Your task to perform on an android device: toggle improve location accuracy Image 0: 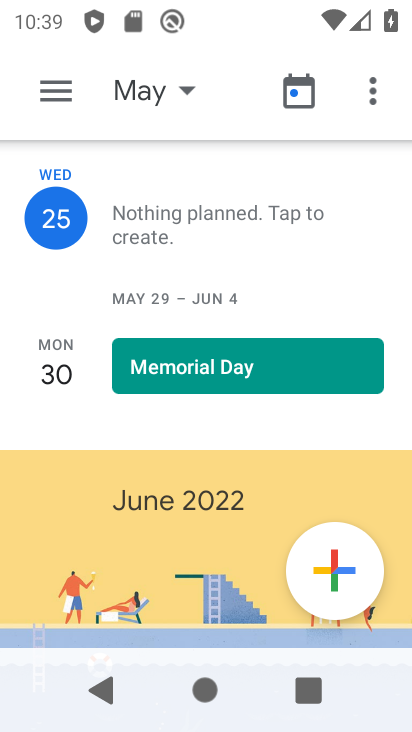
Step 0: press home button
Your task to perform on an android device: toggle improve location accuracy Image 1: 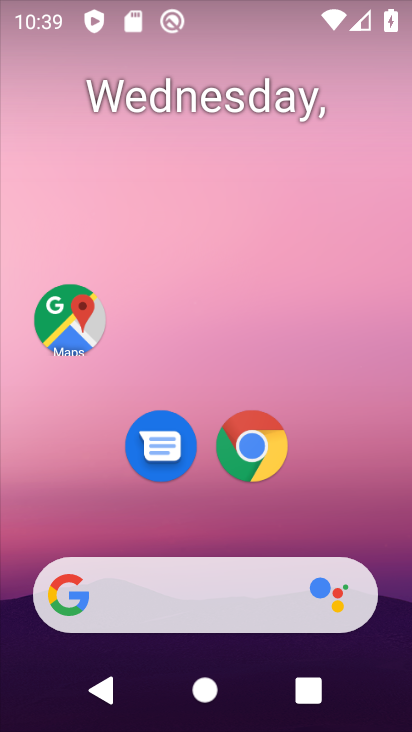
Step 1: drag from (377, 527) to (375, 157)
Your task to perform on an android device: toggle improve location accuracy Image 2: 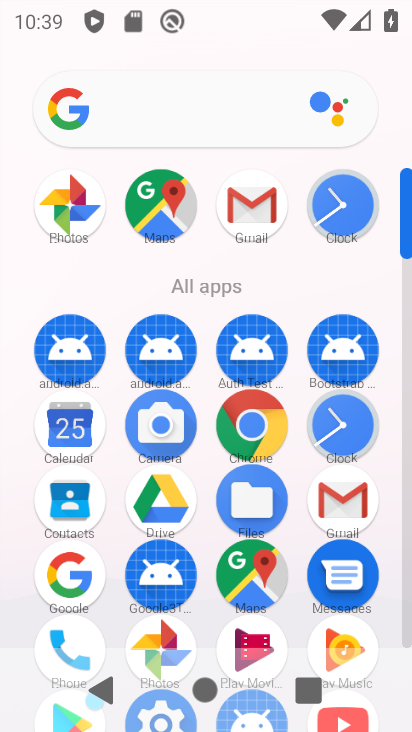
Step 2: drag from (386, 505) to (390, 291)
Your task to perform on an android device: toggle improve location accuracy Image 3: 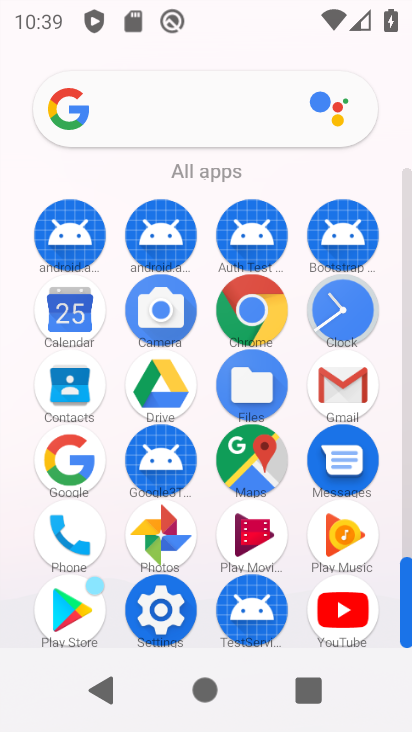
Step 3: click (172, 632)
Your task to perform on an android device: toggle improve location accuracy Image 4: 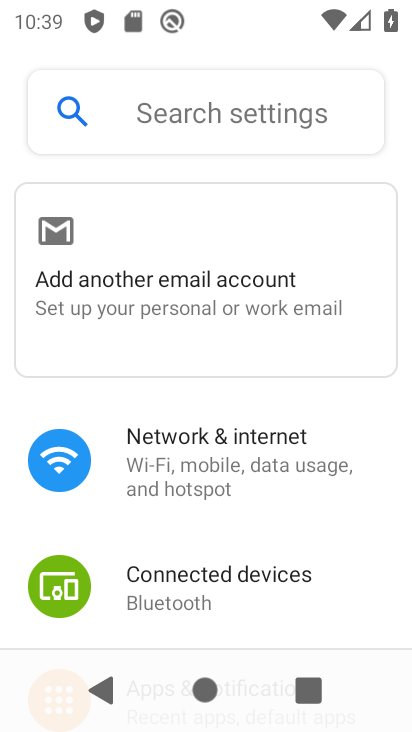
Step 4: drag from (365, 571) to (366, 398)
Your task to perform on an android device: toggle improve location accuracy Image 5: 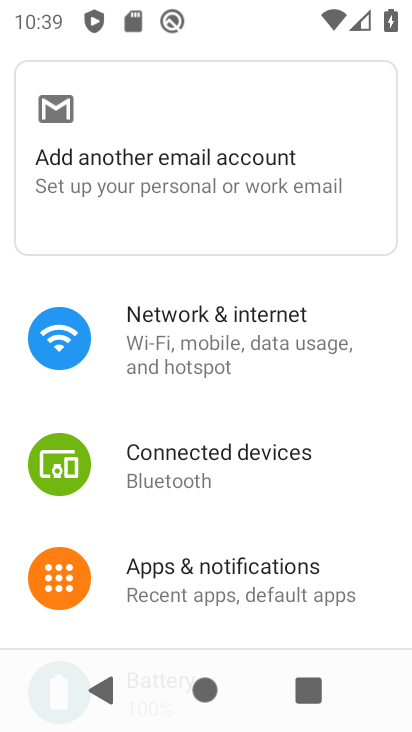
Step 5: drag from (364, 558) to (370, 360)
Your task to perform on an android device: toggle improve location accuracy Image 6: 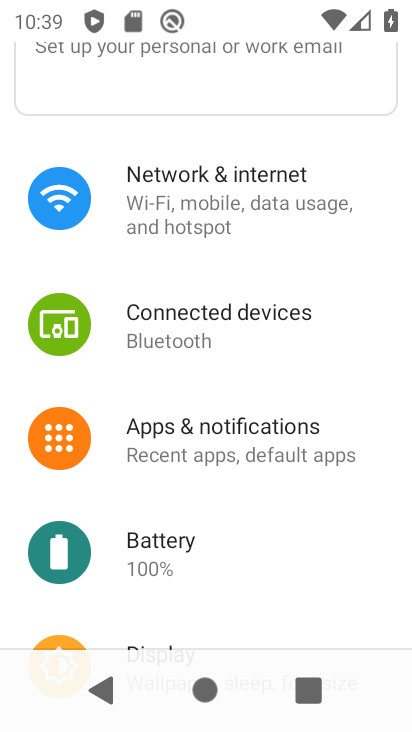
Step 6: drag from (355, 547) to (368, 380)
Your task to perform on an android device: toggle improve location accuracy Image 7: 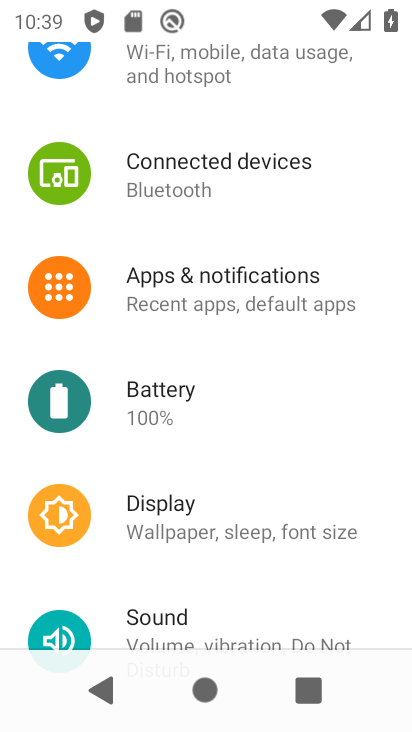
Step 7: drag from (370, 582) to (371, 424)
Your task to perform on an android device: toggle improve location accuracy Image 8: 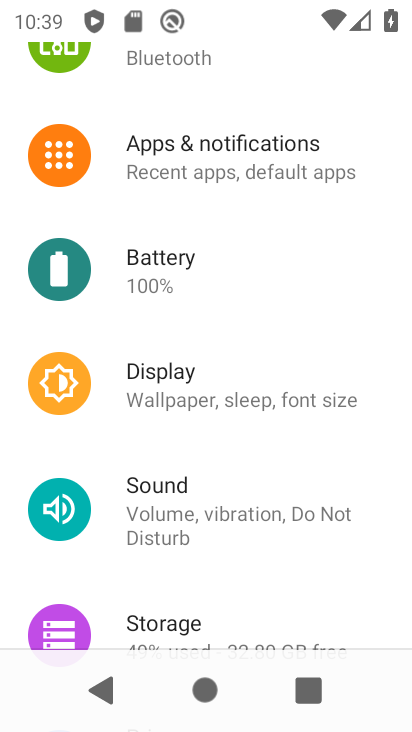
Step 8: drag from (366, 595) to (366, 450)
Your task to perform on an android device: toggle improve location accuracy Image 9: 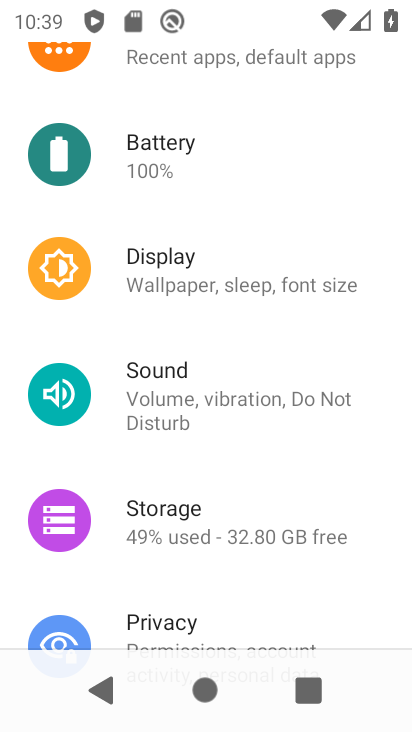
Step 9: drag from (371, 592) to (373, 433)
Your task to perform on an android device: toggle improve location accuracy Image 10: 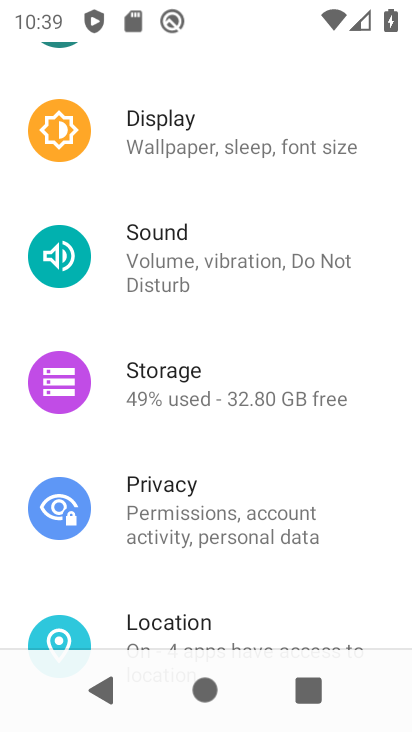
Step 10: drag from (362, 568) to (371, 430)
Your task to perform on an android device: toggle improve location accuracy Image 11: 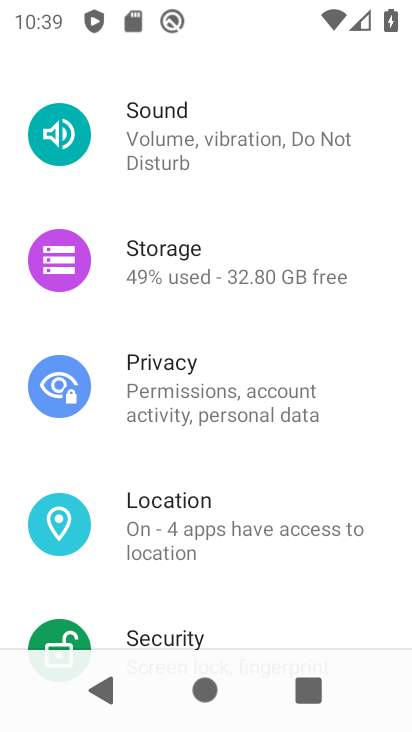
Step 11: drag from (370, 580) to (370, 411)
Your task to perform on an android device: toggle improve location accuracy Image 12: 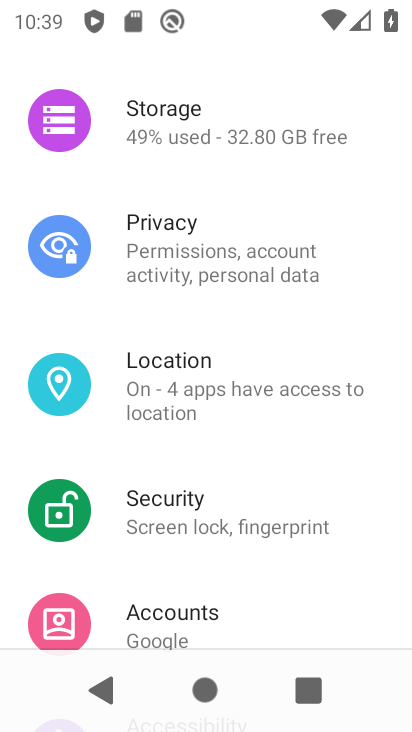
Step 12: drag from (375, 543) to (361, 415)
Your task to perform on an android device: toggle improve location accuracy Image 13: 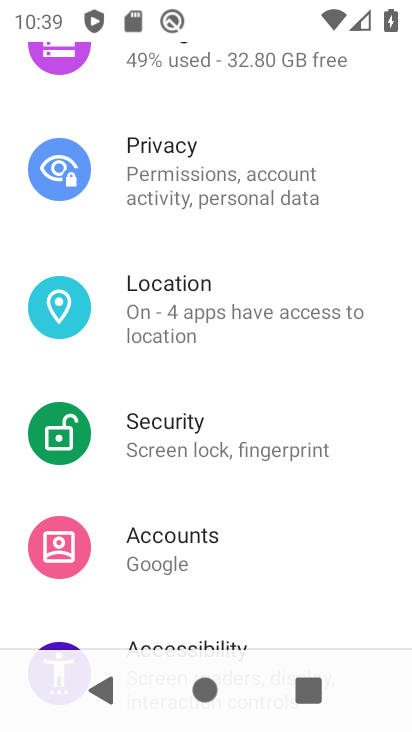
Step 13: click (239, 309)
Your task to perform on an android device: toggle improve location accuracy Image 14: 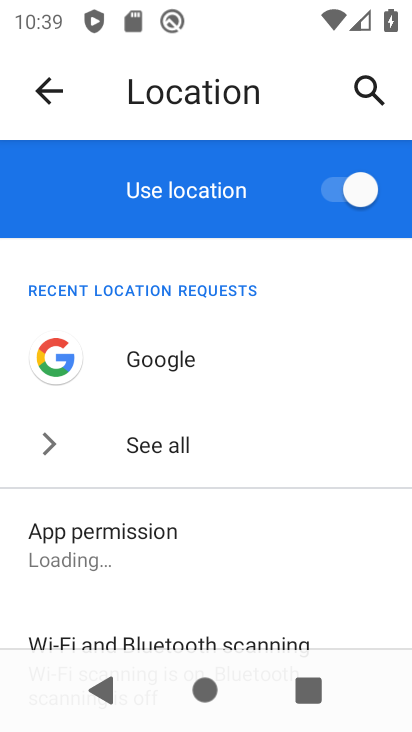
Step 14: drag from (286, 514) to (306, 343)
Your task to perform on an android device: toggle improve location accuracy Image 15: 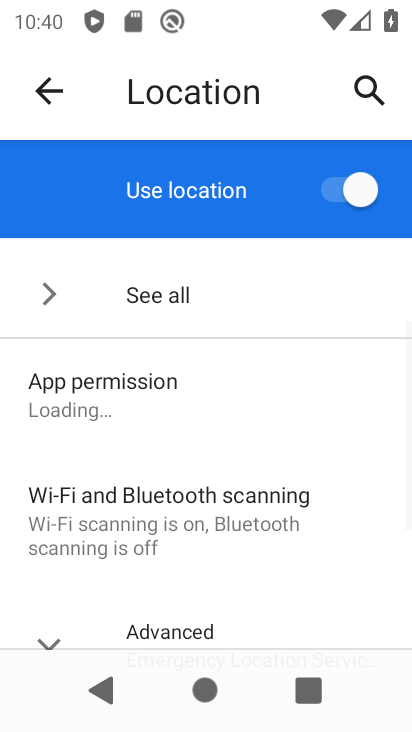
Step 15: drag from (338, 545) to (337, 331)
Your task to perform on an android device: toggle improve location accuracy Image 16: 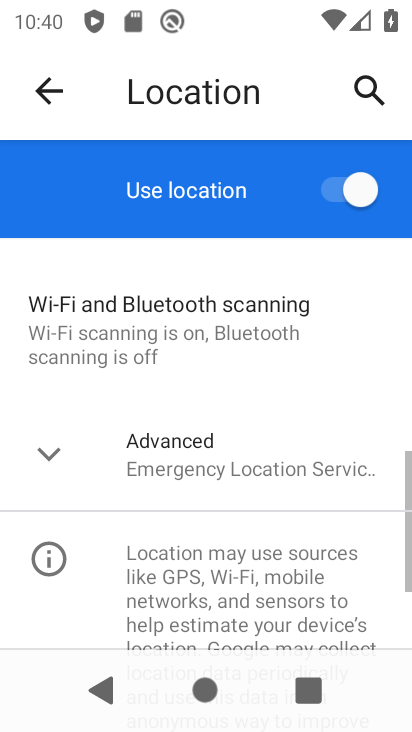
Step 16: click (247, 474)
Your task to perform on an android device: toggle improve location accuracy Image 17: 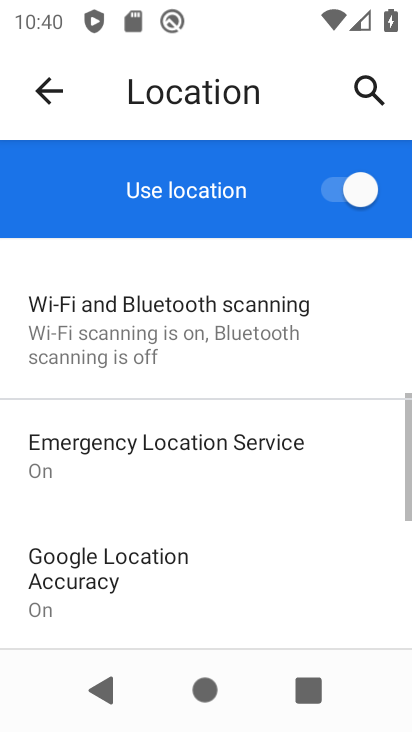
Step 17: drag from (300, 554) to (317, 400)
Your task to perform on an android device: toggle improve location accuracy Image 18: 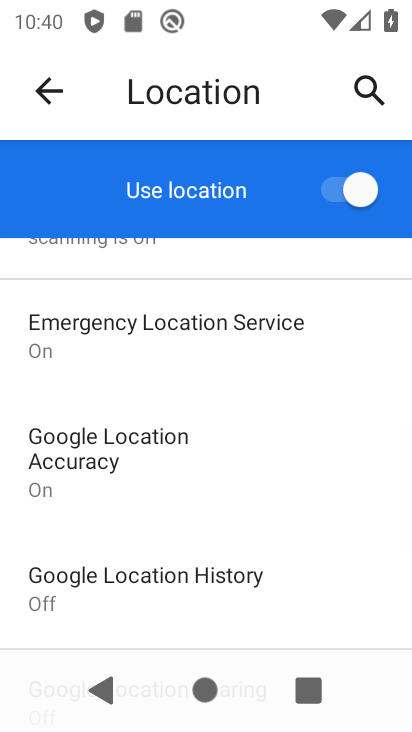
Step 18: drag from (304, 573) to (329, 406)
Your task to perform on an android device: toggle improve location accuracy Image 19: 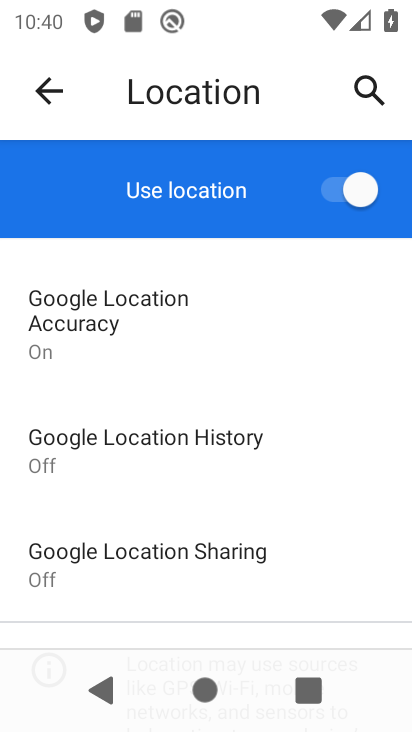
Step 19: drag from (312, 554) to (312, 408)
Your task to perform on an android device: toggle improve location accuracy Image 20: 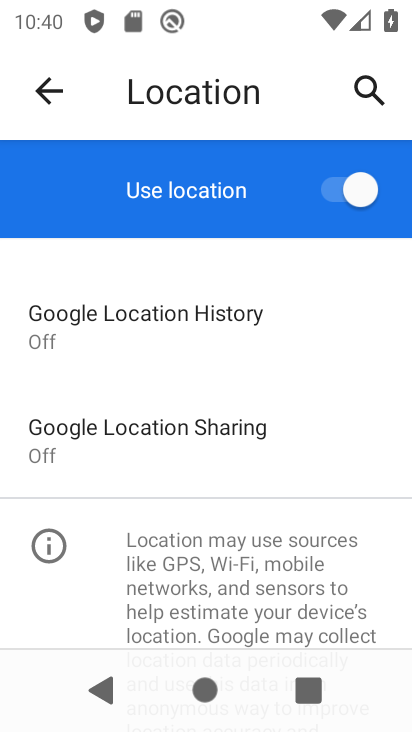
Step 20: drag from (329, 350) to (341, 487)
Your task to perform on an android device: toggle improve location accuracy Image 21: 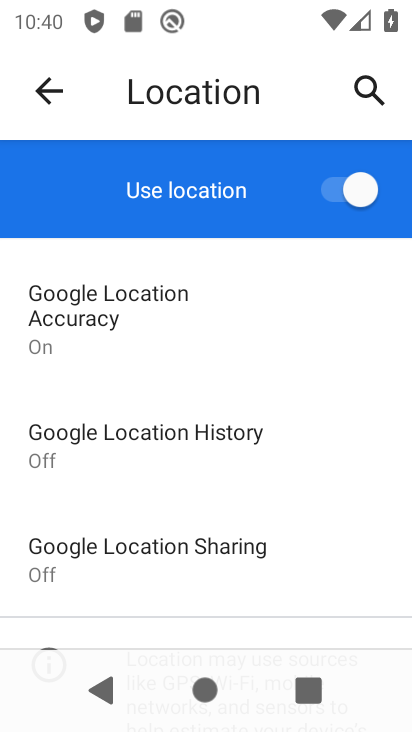
Step 21: drag from (328, 328) to (335, 473)
Your task to perform on an android device: toggle improve location accuracy Image 22: 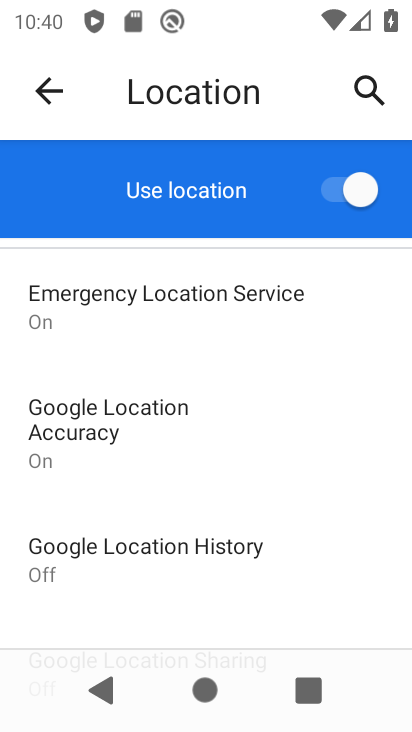
Step 22: drag from (331, 278) to (343, 449)
Your task to perform on an android device: toggle improve location accuracy Image 23: 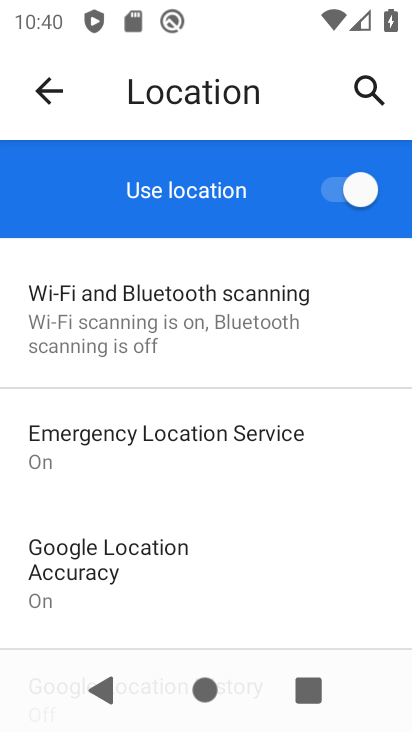
Step 23: drag from (349, 289) to (332, 410)
Your task to perform on an android device: toggle improve location accuracy Image 24: 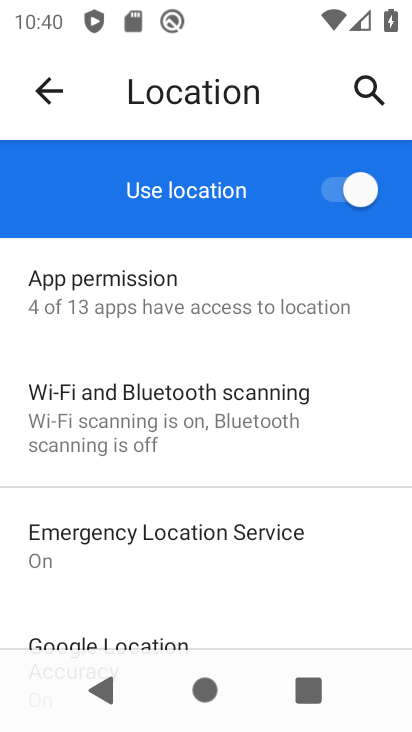
Step 24: drag from (332, 486) to (331, 345)
Your task to perform on an android device: toggle improve location accuracy Image 25: 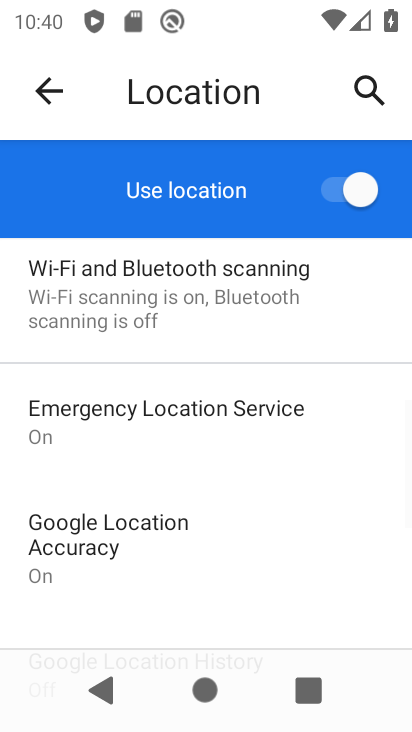
Step 25: drag from (301, 535) to (317, 416)
Your task to perform on an android device: toggle improve location accuracy Image 26: 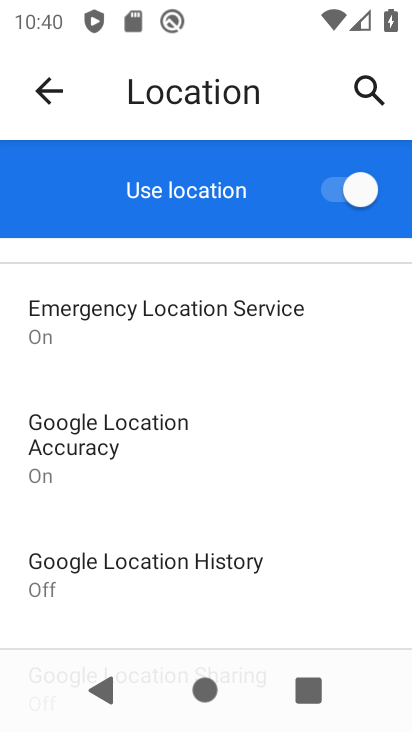
Step 26: click (124, 442)
Your task to perform on an android device: toggle improve location accuracy Image 27: 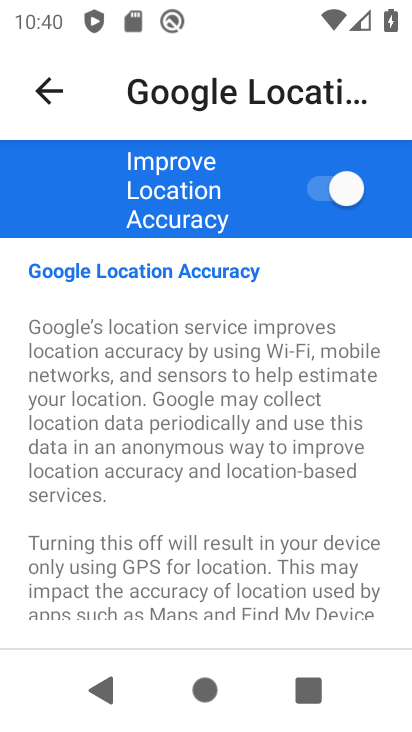
Step 27: task complete